Your task to perform on an android device: Open Chrome and go to settings Image 0: 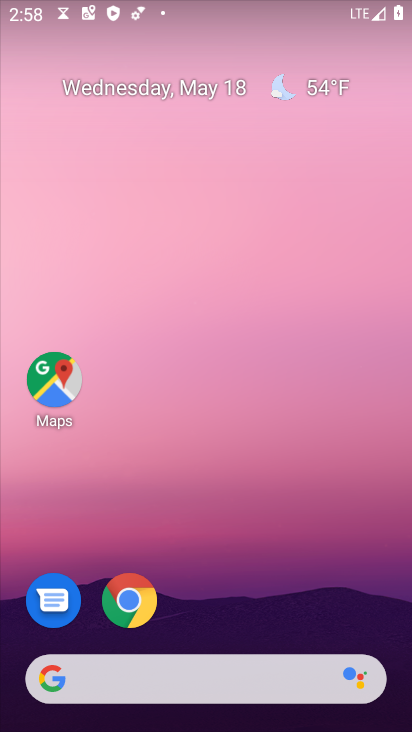
Step 0: press home button
Your task to perform on an android device: Open Chrome and go to settings Image 1: 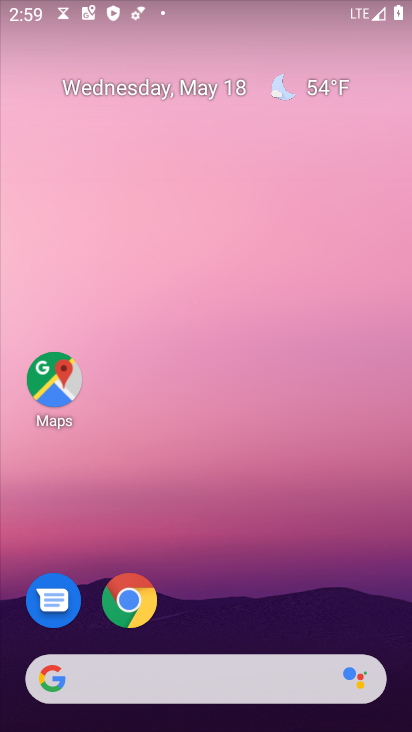
Step 1: click (135, 609)
Your task to perform on an android device: Open Chrome and go to settings Image 2: 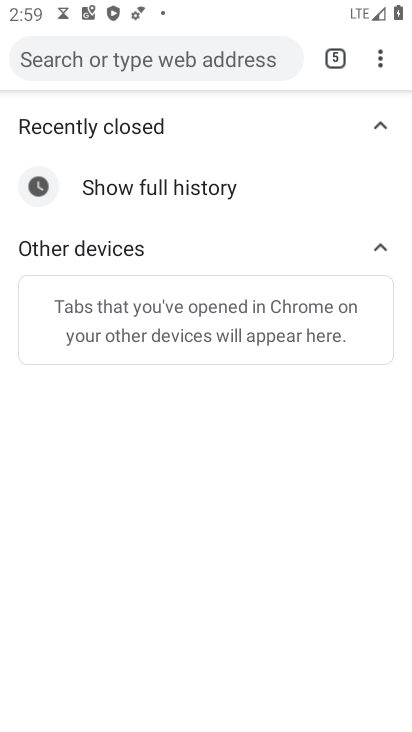
Step 2: task complete